Your task to perform on an android device: check google app version Image 0: 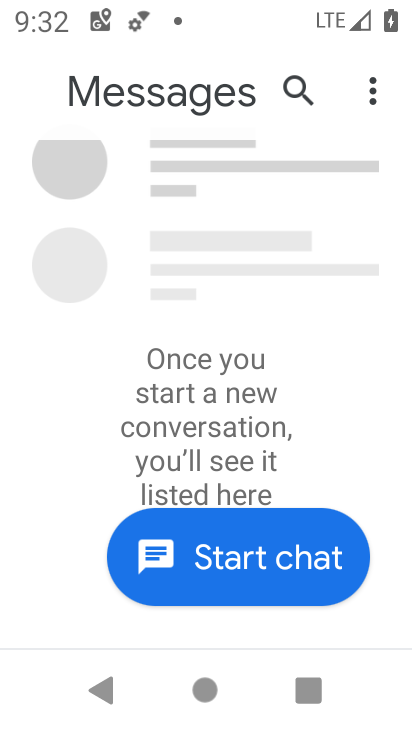
Step 0: press home button
Your task to perform on an android device: check google app version Image 1: 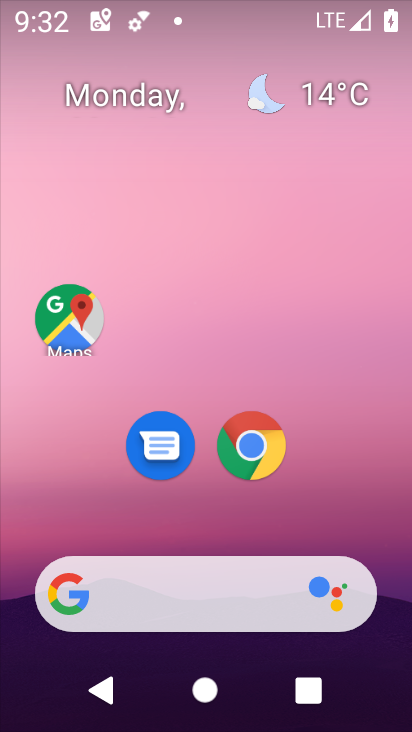
Step 1: drag from (199, 524) to (222, 143)
Your task to perform on an android device: check google app version Image 2: 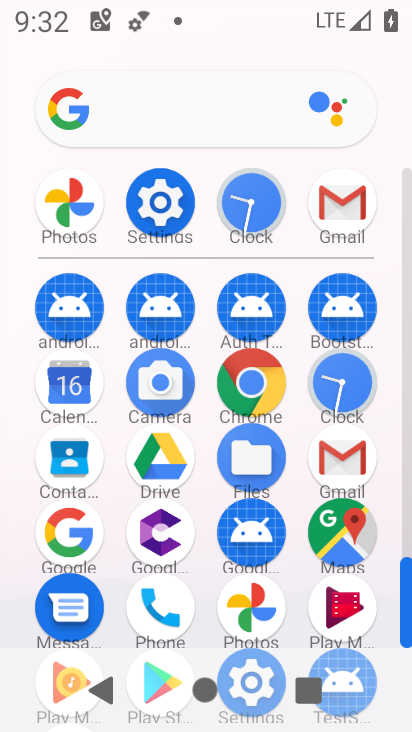
Step 2: click (60, 524)
Your task to perform on an android device: check google app version Image 3: 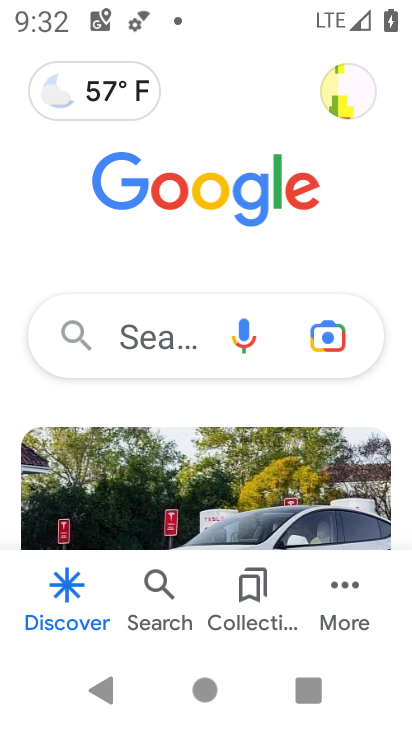
Step 3: click (347, 584)
Your task to perform on an android device: check google app version Image 4: 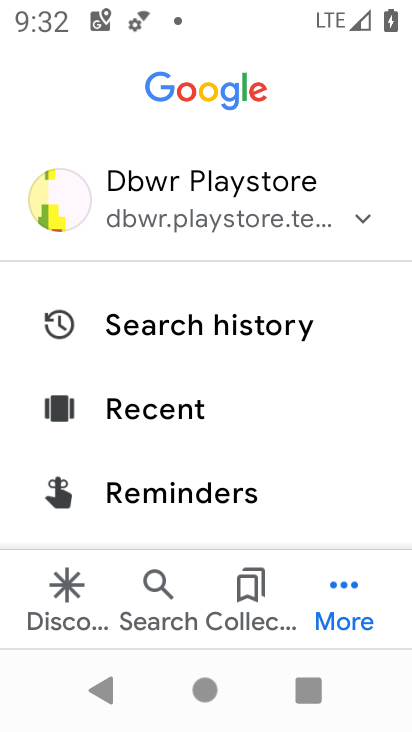
Step 4: drag from (252, 512) to (271, 214)
Your task to perform on an android device: check google app version Image 5: 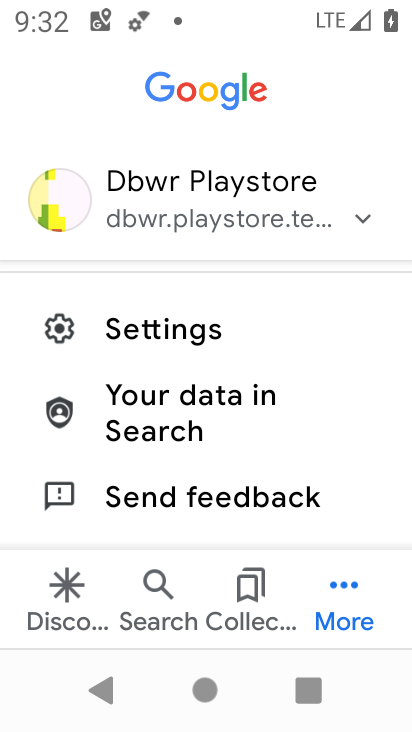
Step 5: click (224, 325)
Your task to perform on an android device: check google app version Image 6: 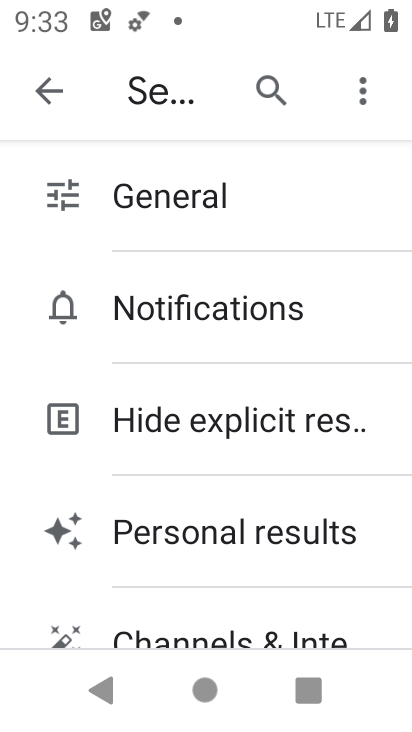
Step 6: drag from (200, 592) to (221, 198)
Your task to perform on an android device: check google app version Image 7: 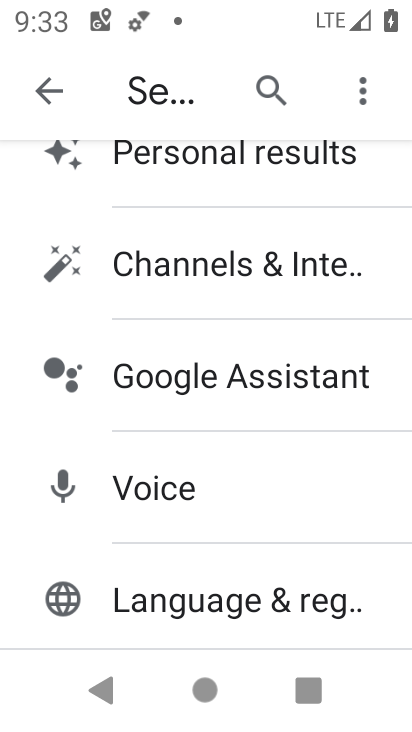
Step 7: drag from (184, 571) to (195, 138)
Your task to perform on an android device: check google app version Image 8: 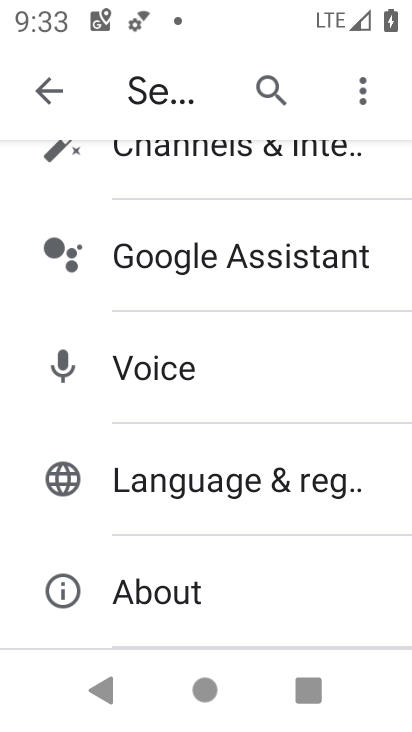
Step 8: click (216, 578)
Your task to perform on an android device: check google app version Image 9: 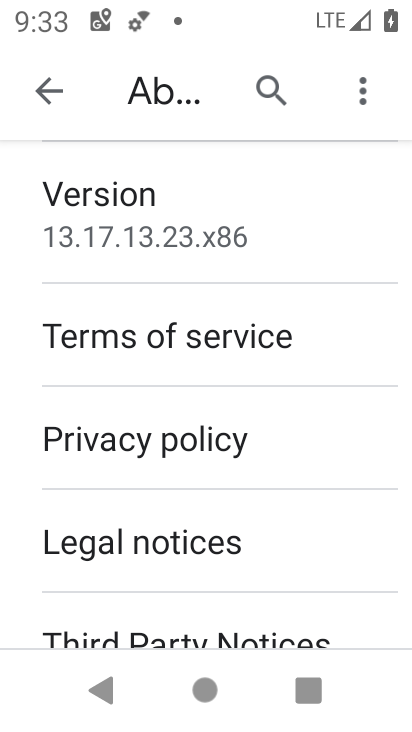
Step 9: task complete